Your task to perform on an android device: turn on location history Image 0: 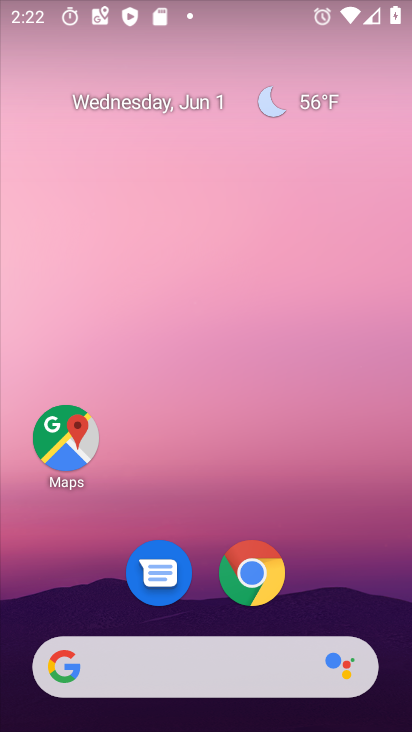
Step 0: drag from (358, 500) to (408, 4)
Your task to perform on an android device: turn on location history Image 1: 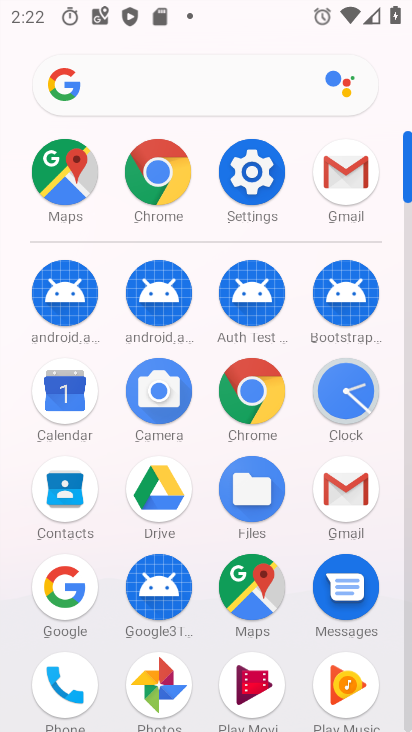
Step 1: click (249, 184)
Your task to perform on an android device: turn on location history Image 2: 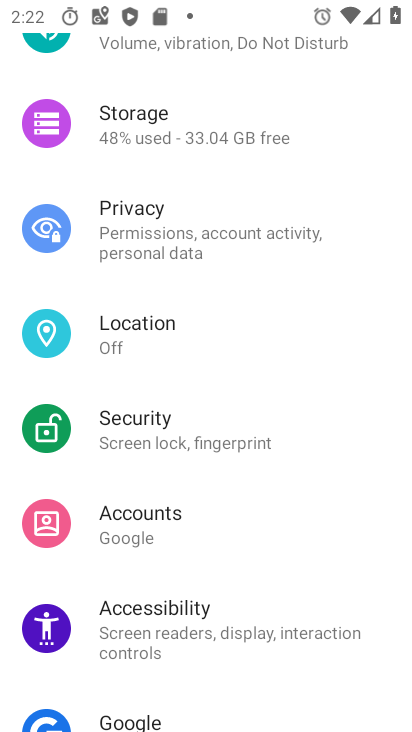
Step 2: click (157, 322)
Your task to perform on an android device: turn on location history Image 3: 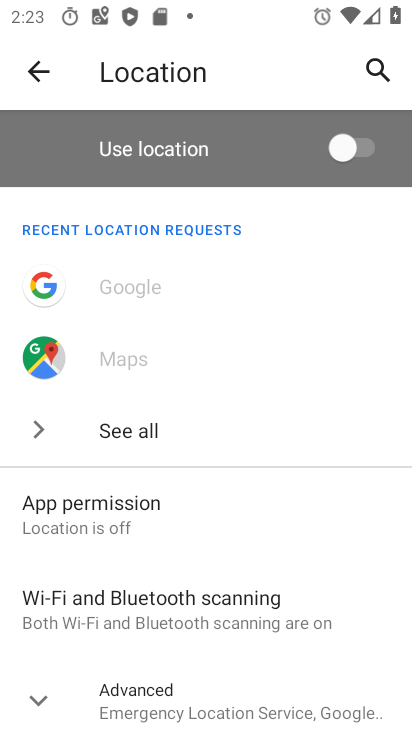
Step 3: drag from (204, 628) to (252, 387)
Your task to perform on an android device: turn on location history Image 4: 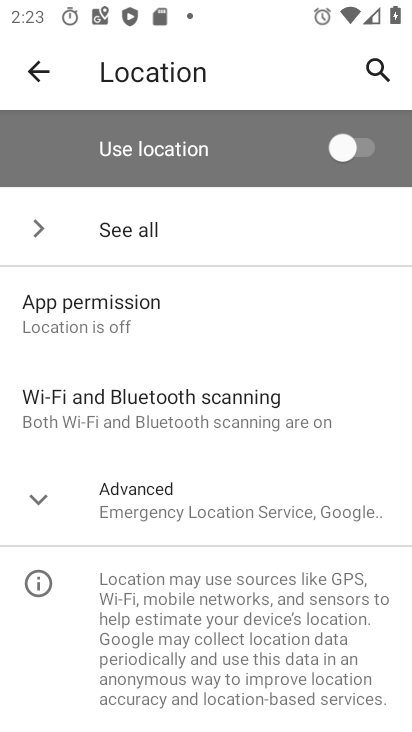
Step 4: click (185, 504)
Your task to perform on an android device: turn on location history Image 5: 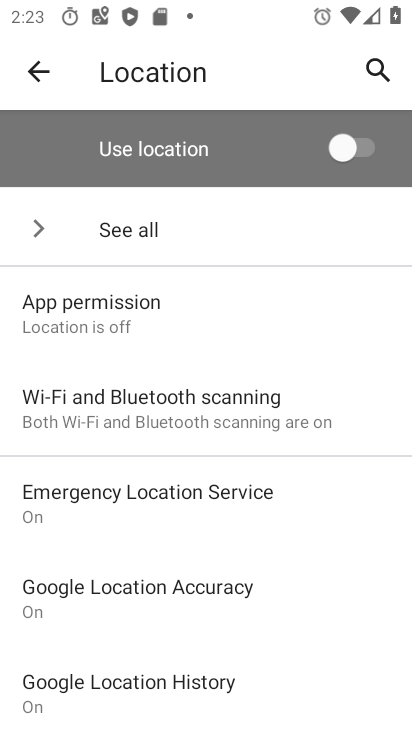
Step 5: drag from (192, 656) to (252, 305)
Your task to perform on an android device: turn on location history Image 6: 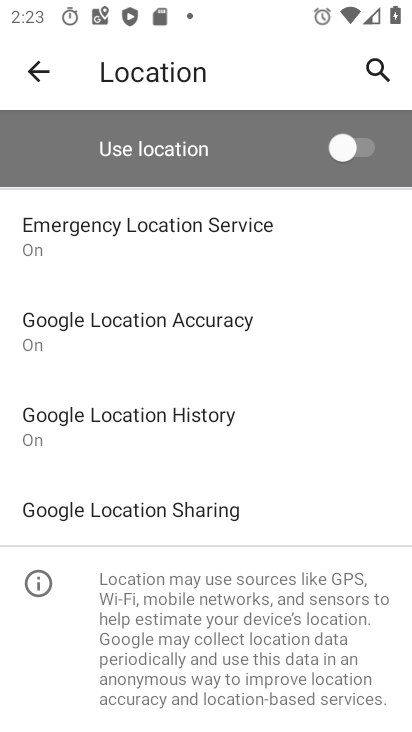
Step 6: click (181, 432)
Your task to perform on an android device: turn on location history Image 7: 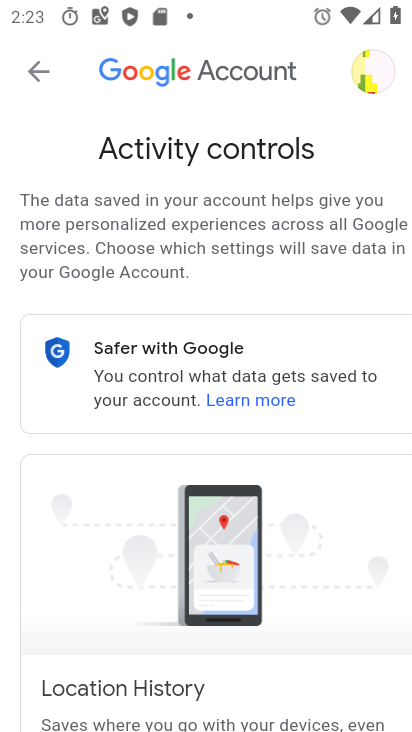
Step 7: task complete